Your task to perform on an android device: Go to battery settings Image 0: 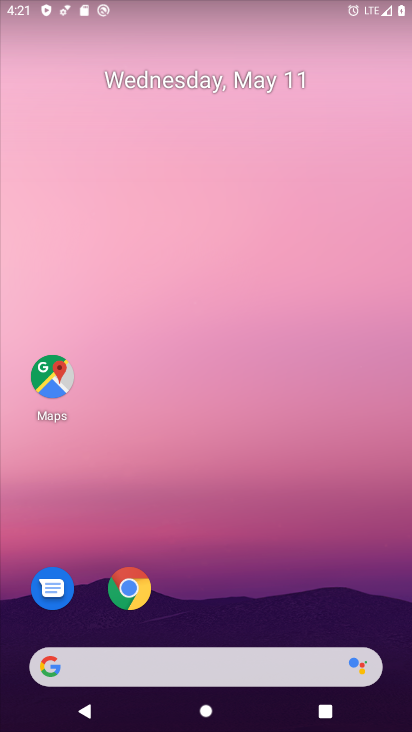
Step 0: drag from (260, 615) to (232, 187)
Your task to perform on an android device: Go to battery settings Image 1: 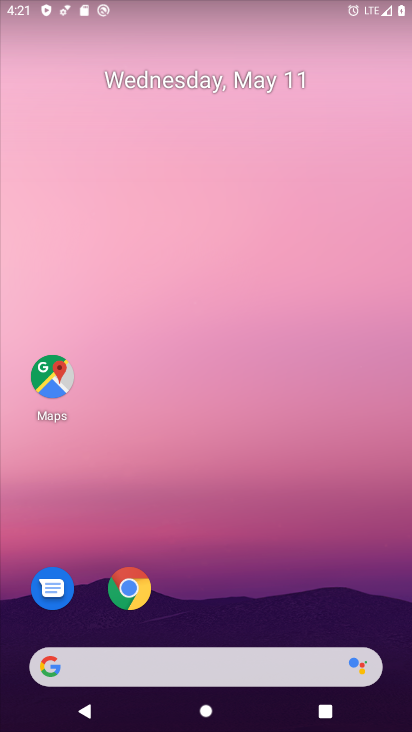
Step 1: drag from (327, 588) to (335, 146)
Your task to perform on an android device: Go to battery settings Image 2: 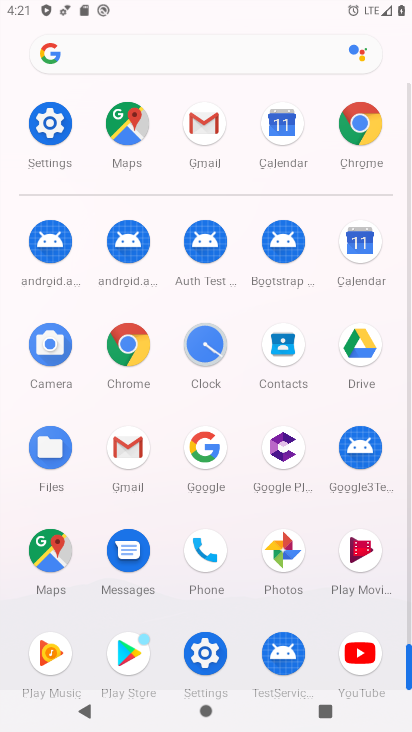
Step 2: click (49, 142)
Your task to perform on an android device: Go to battery settings Image 3: 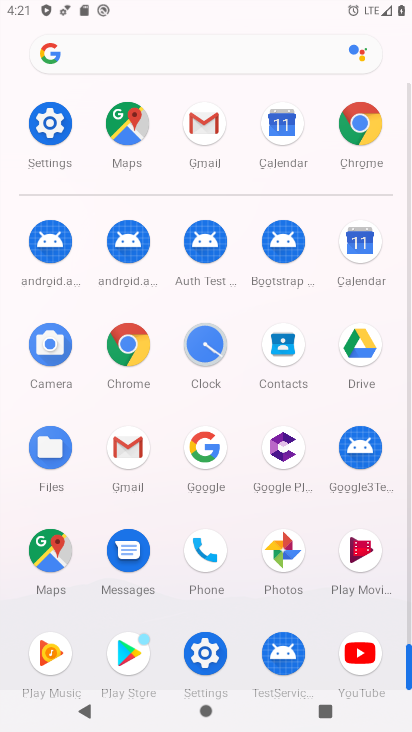
Step 3: click (52, 141)
Your task to perform on an android device: Go to battery settings Image 4: 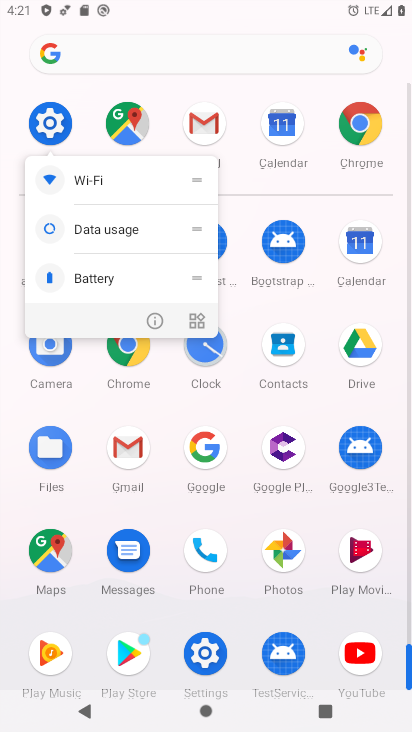
Step 4: click (70, 436)
Your task to perform on an android device: Go to battery settings Image 5: 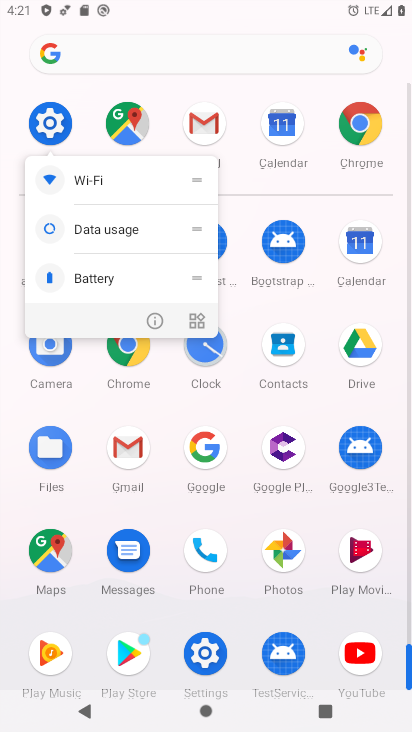
Step 5: click (52, 141)
Your task to perform on an android device: Go to battery settings Image 6: 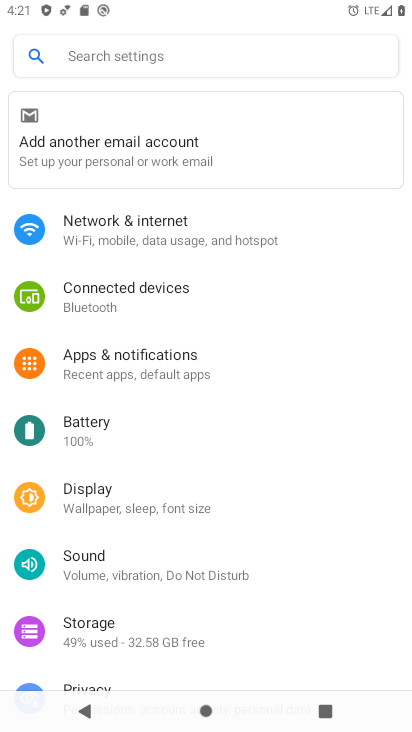
Step 6: task complete
Your task to perform on an android device: Go to battery settings Image 7: 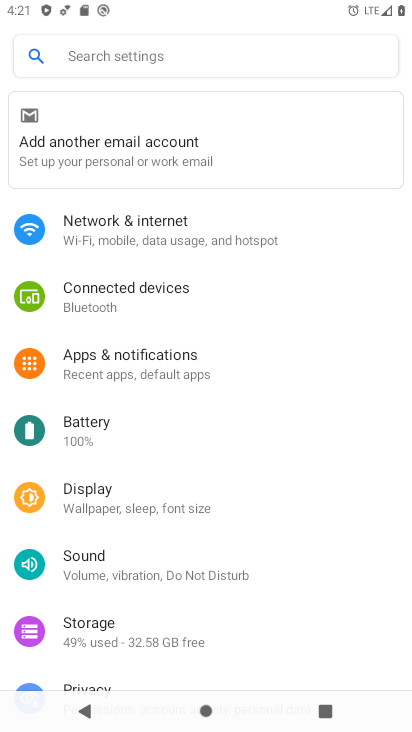
Step 7: click (97, 439)
Your task to perform on an android device: Go to battery settings Image 8: 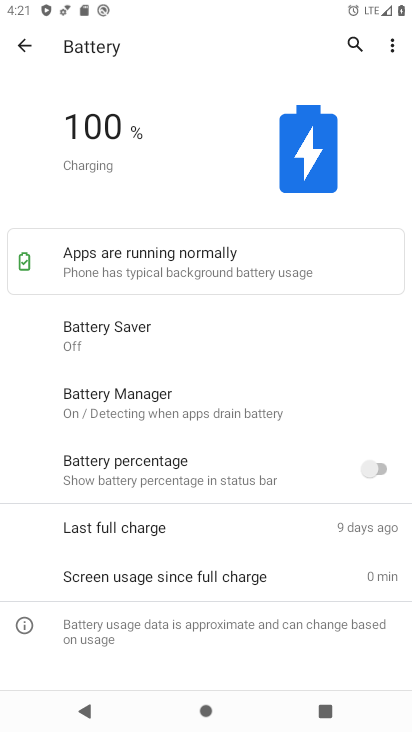
Step 8: task complete